Your task to perform on an android device: Open Wikipedia Image 0: 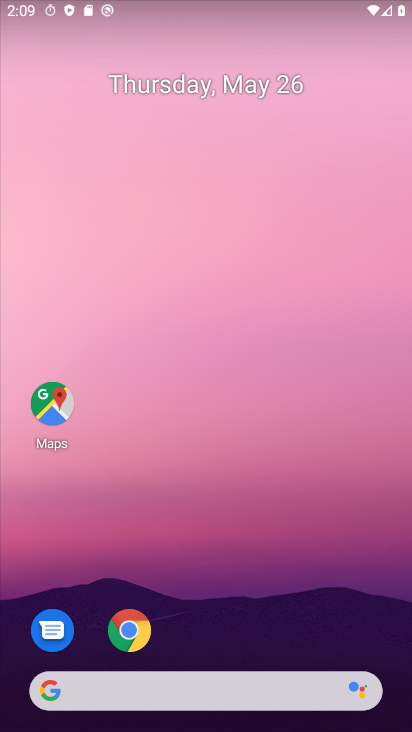
Step 0: click (130, 629)
Your task to perform on an android device: Open Wikipedia Image 1: 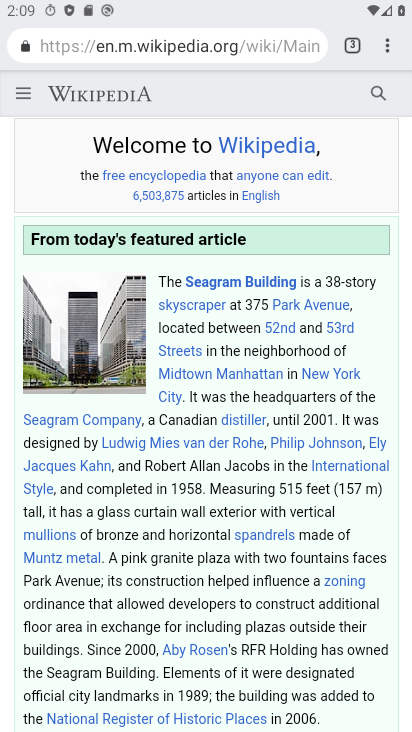
Step 1: task complete